Your task to perform on an android device: Open my contact list Image 0: 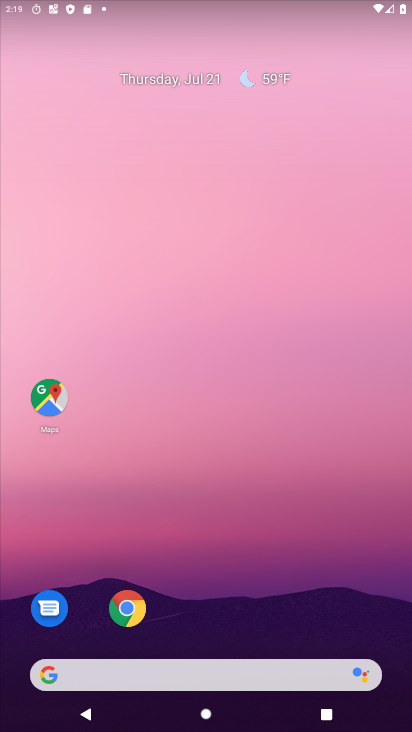
Step 0: drag from (326, 562) to (116, 4)
Your task to perform on an android device: Open my contact list Image 1: 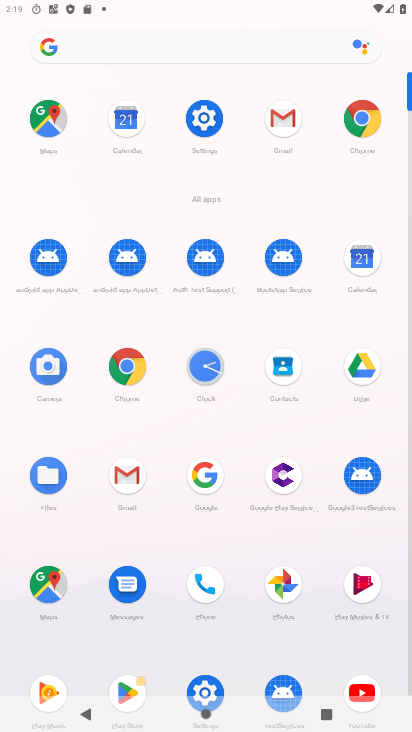
Step 1: click (269, 363)
Your task to perform on an android device: Open my contact list Image 2: 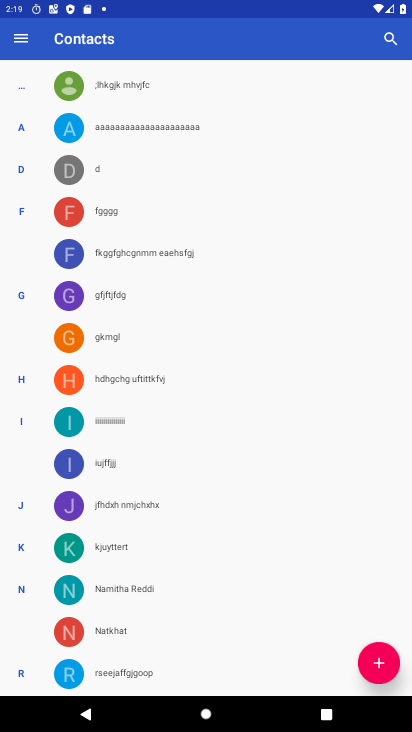
Step 2: task complete